Your task to perform on an android device: manage bookmarks in the chrome app Image 0: 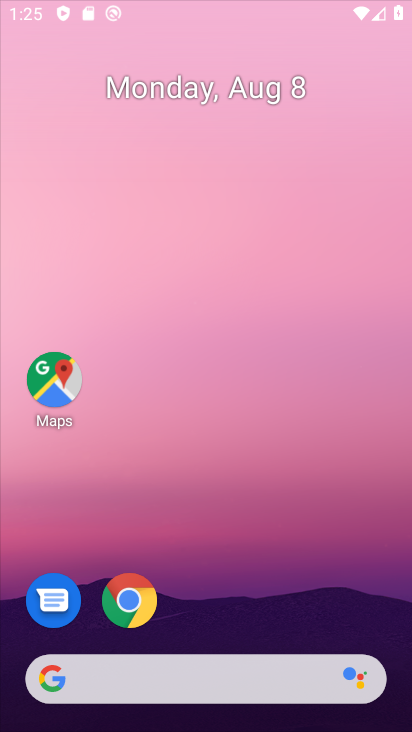
Step 0: press home button
Your task to perform on an android device: manage bookmarks in the chrome app Image 1: 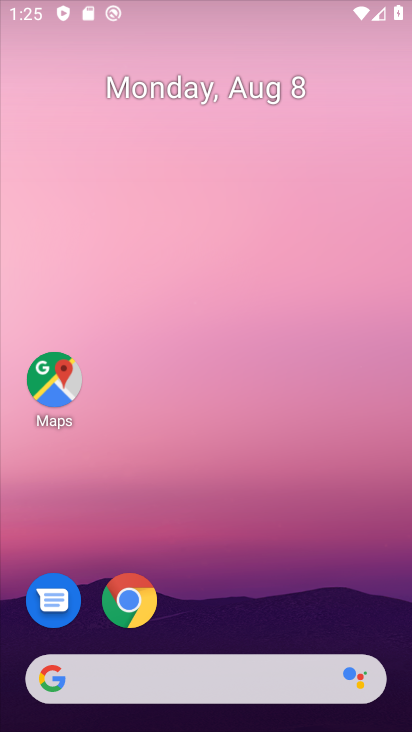
Step 1: drag from (165, 116) to (167, 69)
Your task to perform on an android device: manage bookmarks in the chrome app Image 2: 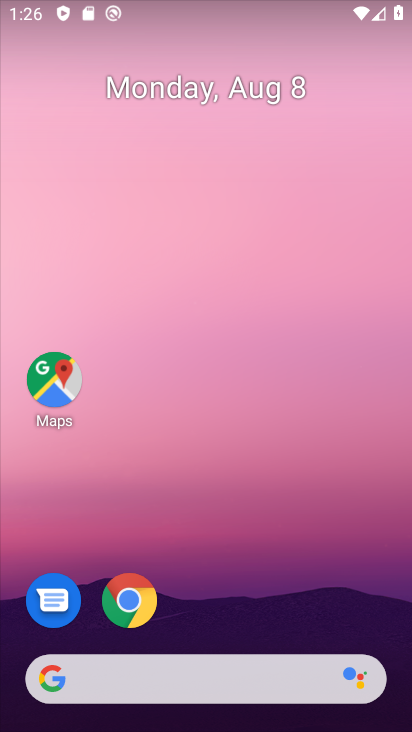
Step 2: drag from (249, 611) to (121, 163)
Your task to perform on an android device: manage bookmarks in the chrome app Image 3: 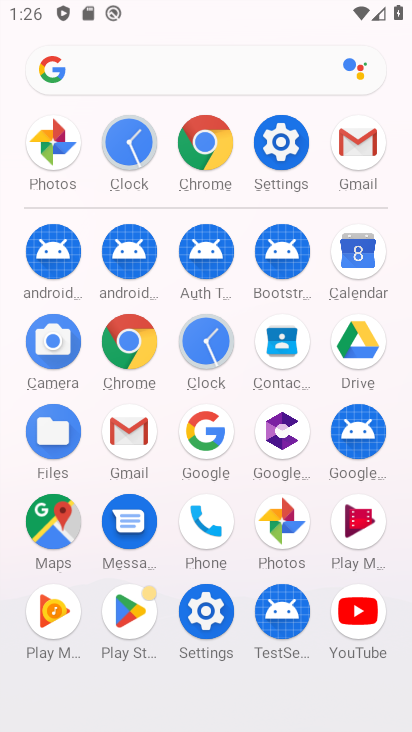
Step 3: click (128, 362)
Your task to perform on an android device: manage bookmarks in the chrome app Image 4: 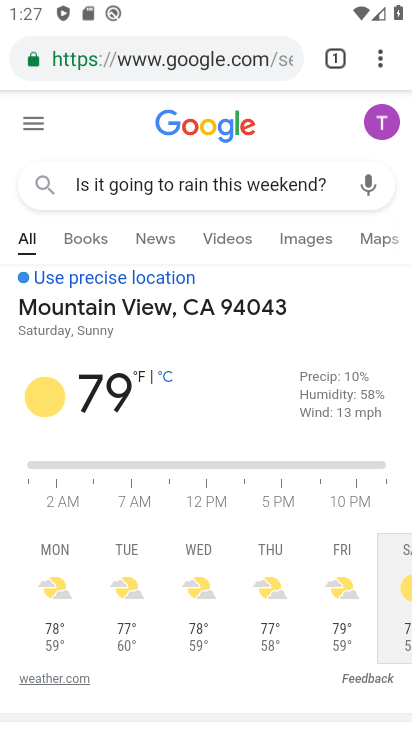
Step 4: task complete